Your task to perform on an android device: Go to notification settings Image 0: 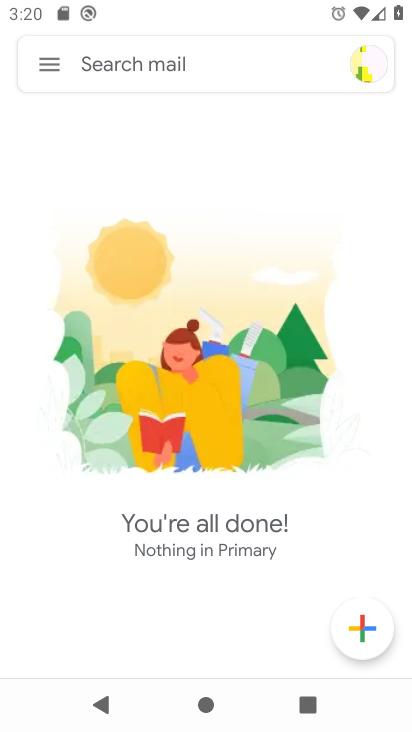
Step 0: press home button
Your task to perform on an android device: Go to notification settings Image 1: 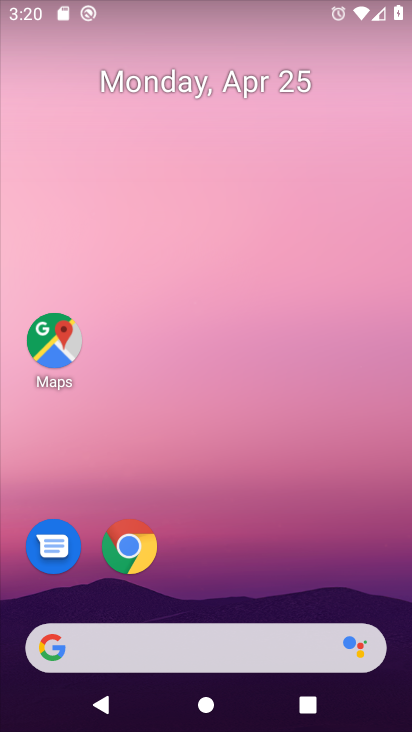
Step 1: drag from (263, 557) to (309, 94)
Your task to perform on an android device: Go to notification settings Image 2: 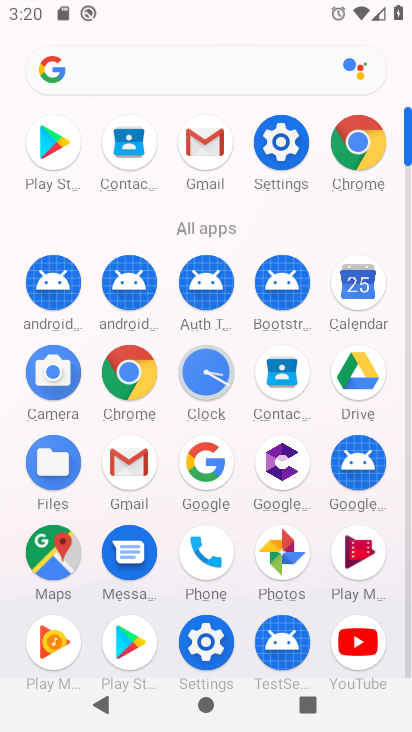
Step 2: click (271, 153)
Your task to perform on an android device: Go to notification settings Image 3: 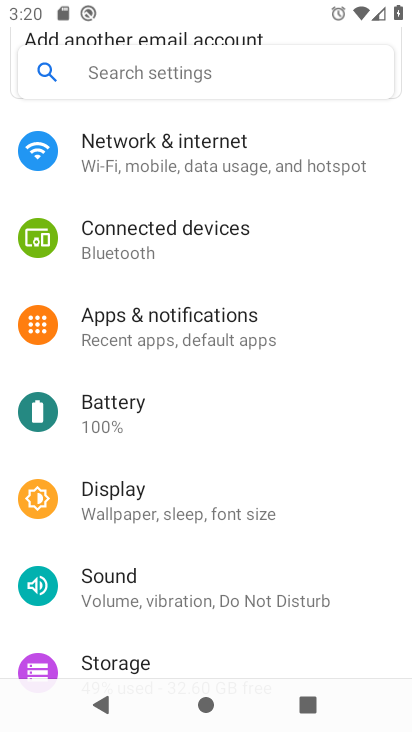
Step 3: click (235, 336)
Your task to perform on an android device: Go to notification settings Image 4: 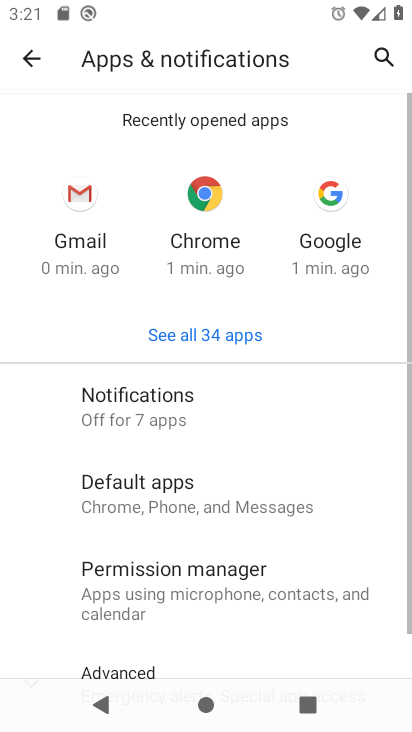
Step 4: click (177, 415)
Your task to perform on an android device: Go to notification settings Image 5: 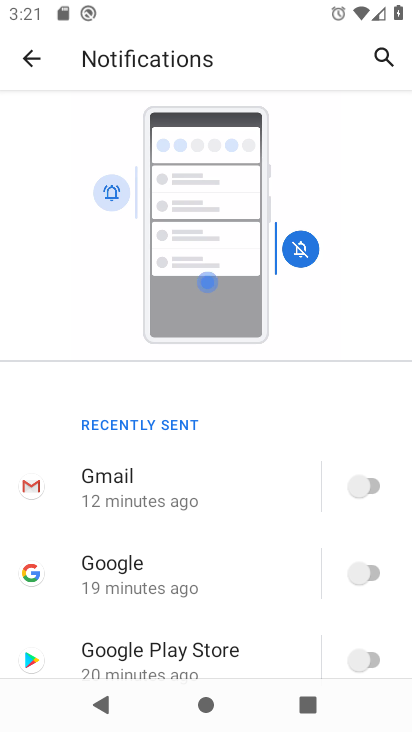
Step 5: task complete